Your task to perform on an android device: turn off location Image 0: 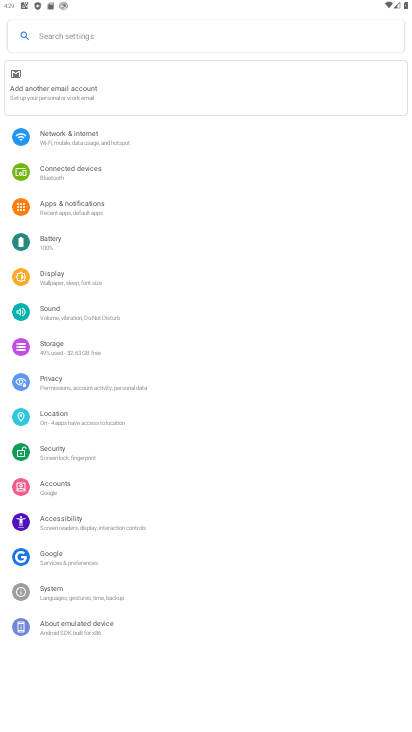
Step 0: press home button
Your task to perform on an android device: turn off location Image 1: 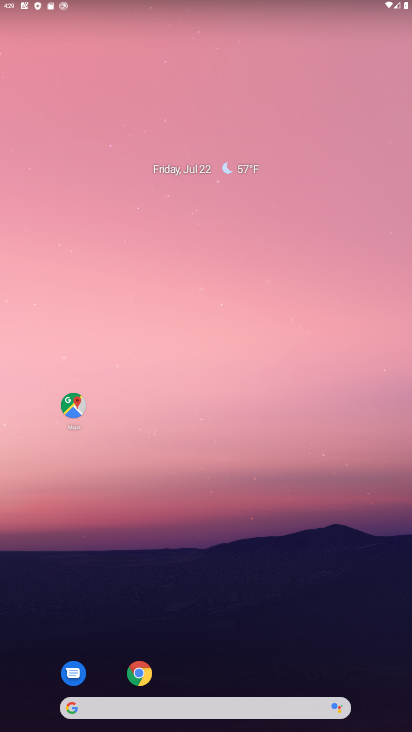
Step 1: drag from (300, 3) to (304, 475)
Your task to perform on an android device: turn off location Image 2: 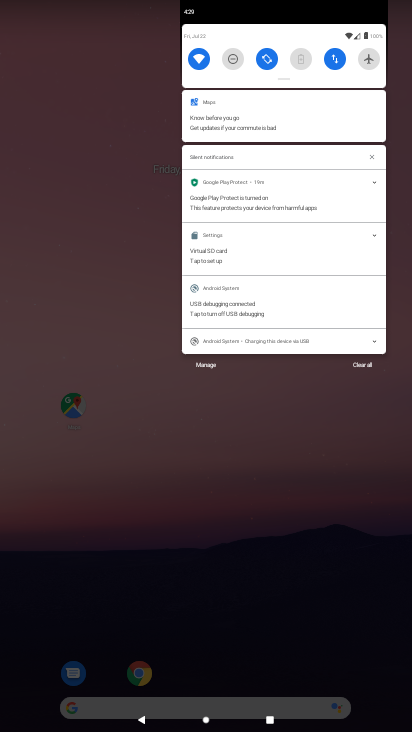
Step 2: drag from (279, 76) to (285, 402)
Your task to perform on an android device: turn off location Image 3: 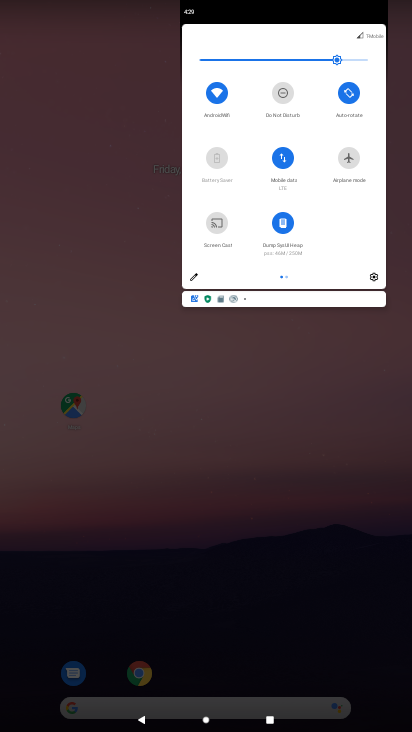
Step 3: click (195, 280)
Your task to perform on an android device: turn off location Image 4: 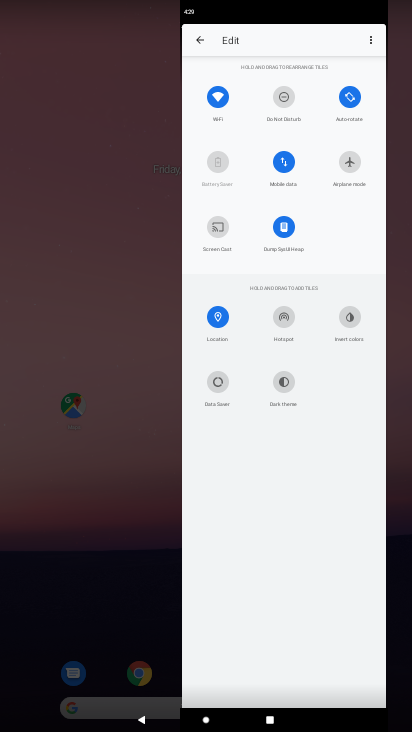
Step 4: drag from (221, 310) to (347, 234)
Your task to perform on an android device: turn off location Image 5: 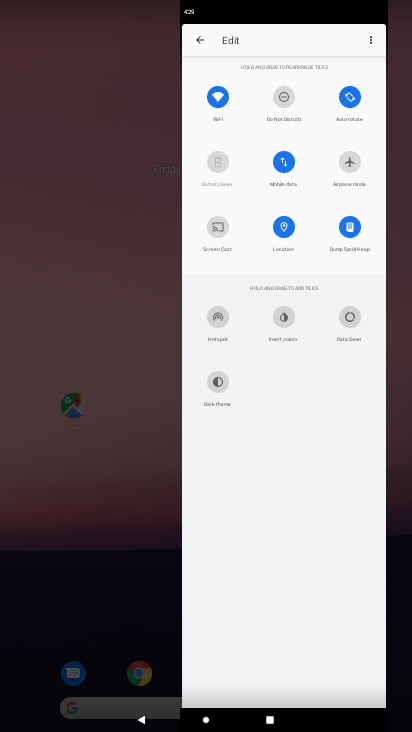
Step 5: click (194, 38)
Your task to perform on an android device: turn off location Image 6: 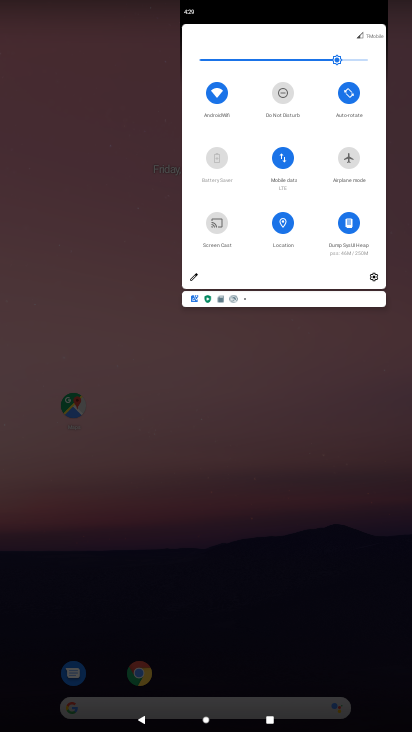
Step 6: click (288, 221)
Your task to perform on an android device: turn off location Image 7: 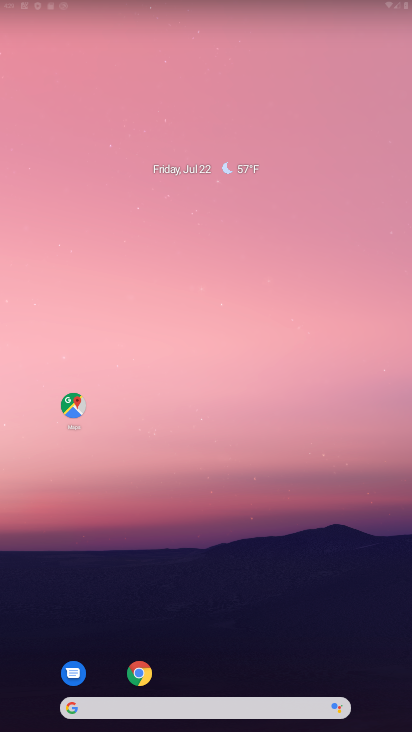
Step 7: task complete